Your task to perform on an android device: see creations saved in the google photos Image 0: 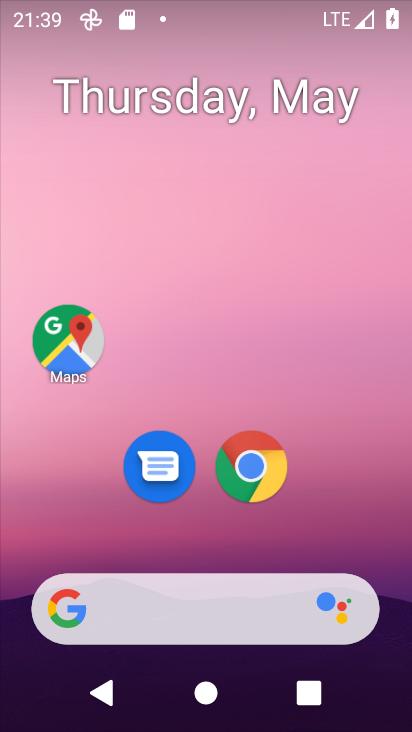
Step 0: drag from (356, 499) to (337, 150)
Your task to perform on an android device: see creations saved in the google photos Image 1: 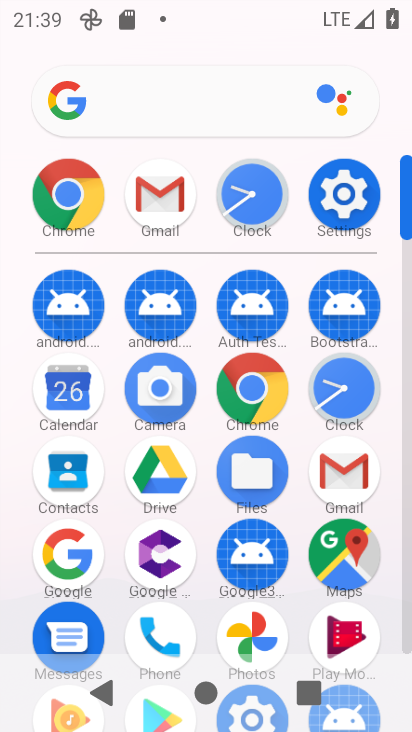
Step 1: click (255, 643)
Your task to perform on an android device: see creations saved in the google photos Image 2: 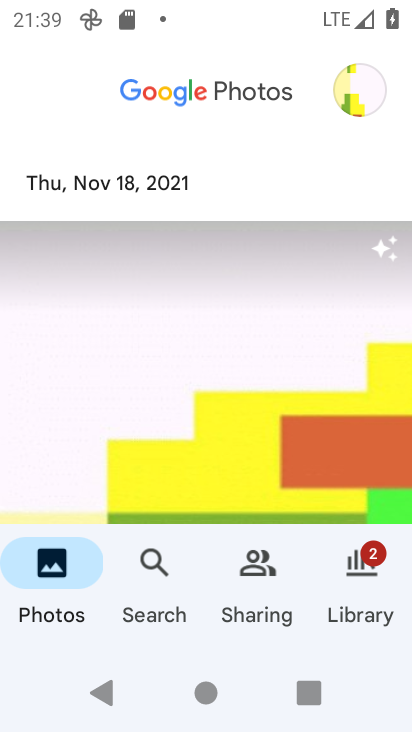
Step 2: click (354, 565)
Your task to perform on an android device: see creations saved in the google photos Image 3: 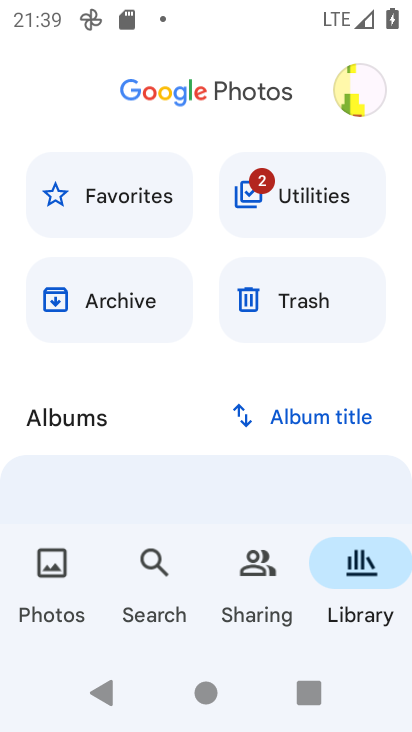
Step 3: click (115, 279)
Your task to perform on an android device: see creations saved in the google photos Image 4: 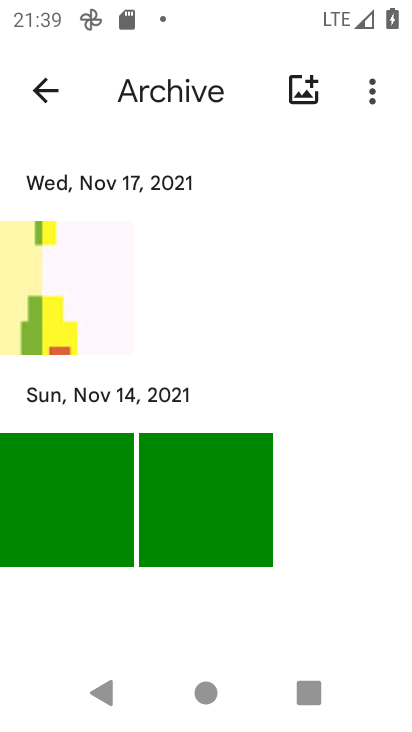
Step 4: task complete